Your task to perform on an android device: create a new album in the google photos Image 0: 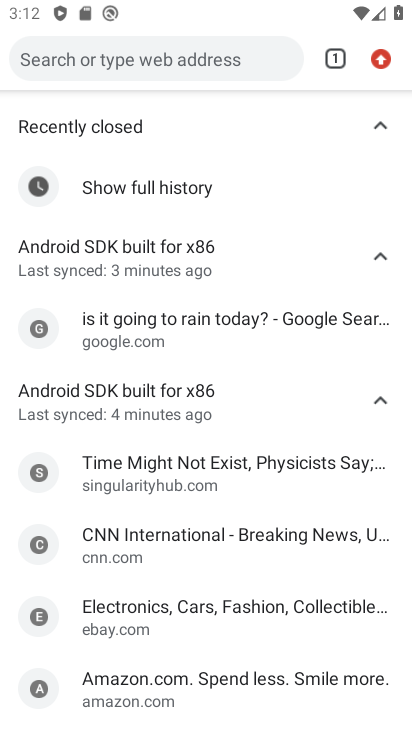
Step 0: press home button
Your task to perform on an android device: create a new album in the google photos Image 1: 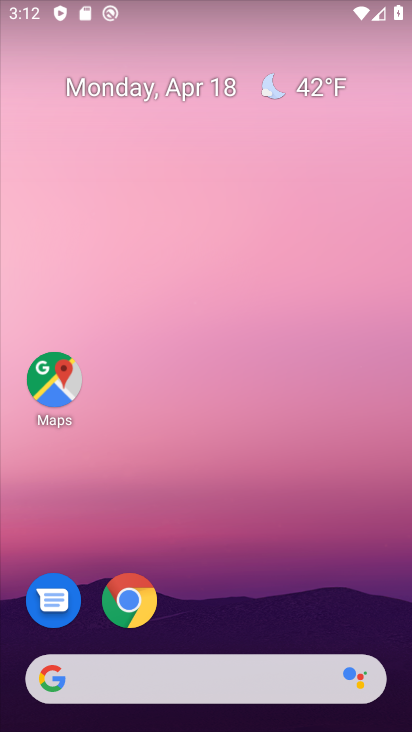
Step 1: drag from (193, 663) to (383, 206)
Your task to perform on an android device: create a new album in the google photos Image 2: 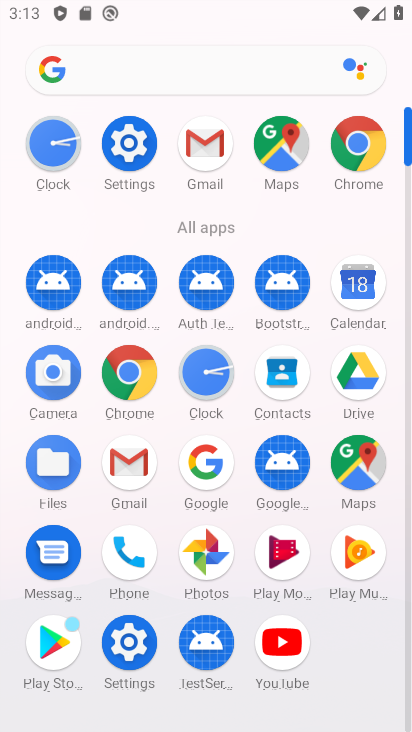
Step 2: click (208, 556)
Your task to perform on an android device: create a new album in the google photos Image 3: 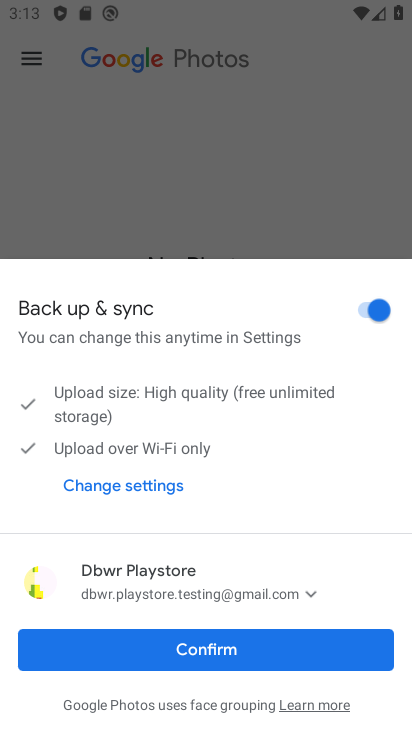
Step 3: click (201, 651)
Your task to perform on an android device: create a new album in the google photos Image 4: 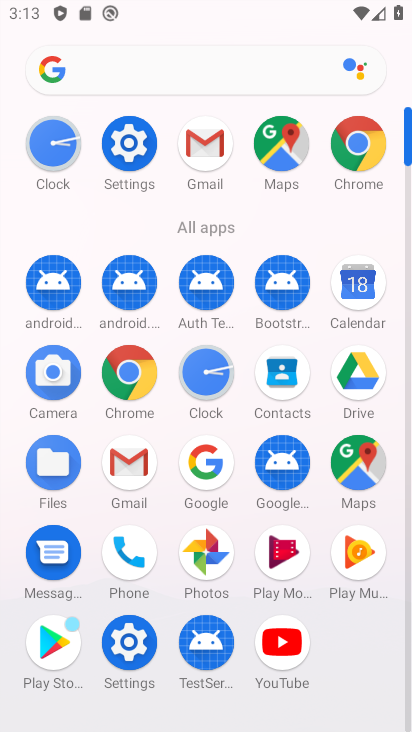
Step 4: click (209, 552)
Your task to perform on an android device: create a new album in the google photos Image 5: 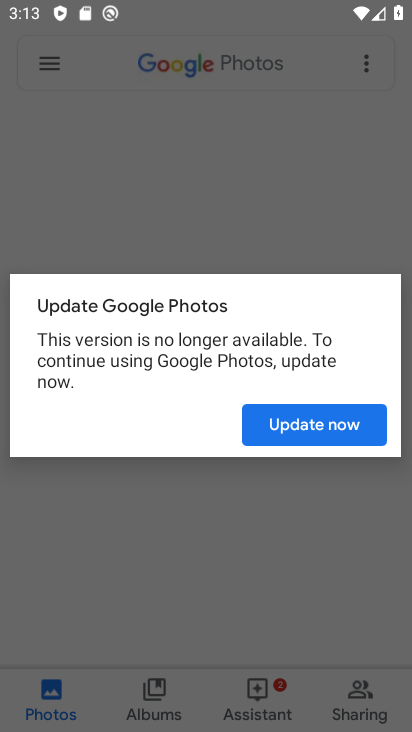
Step 5: click (315, 422)
Your task to perform on an android device: create a new album in the google photos Image 6: 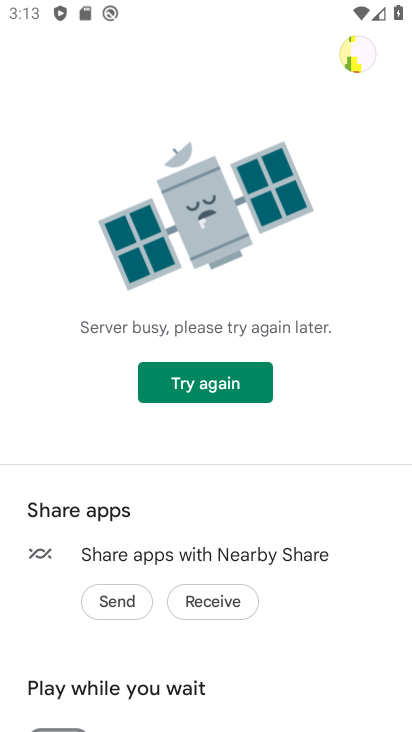
Step 6: drag from (232, 560) to (336, 271)
Your task to perform on an android device: create a new album in the google photos Image 7: 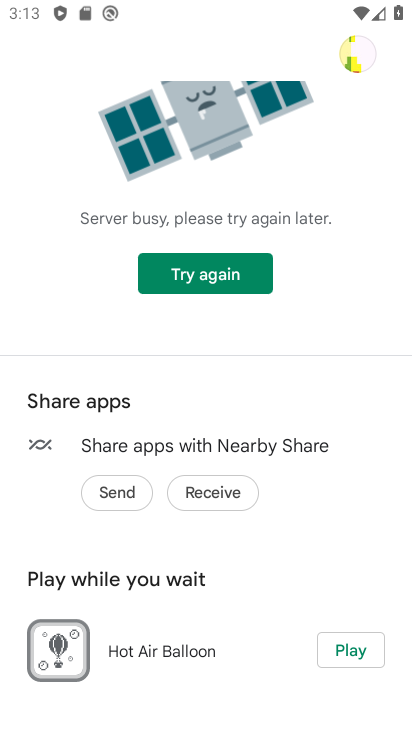
Step 7: press back button
Your task to perform on an android device: create a new album in the google photos Image 8: 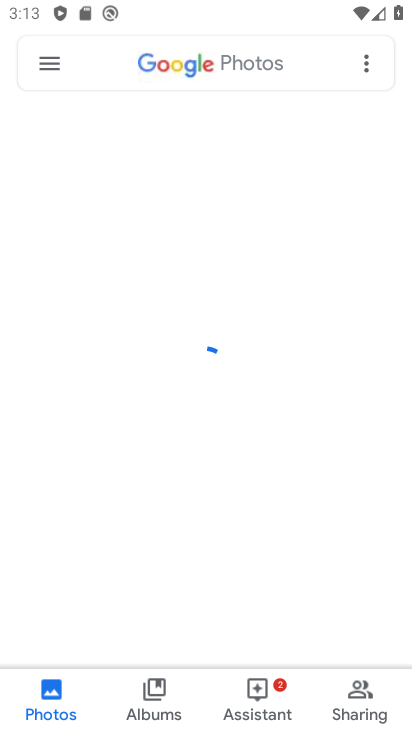
Step 8: click (158, 702)
Your task to perform on an android device: create a new album in the google photos Image 9: 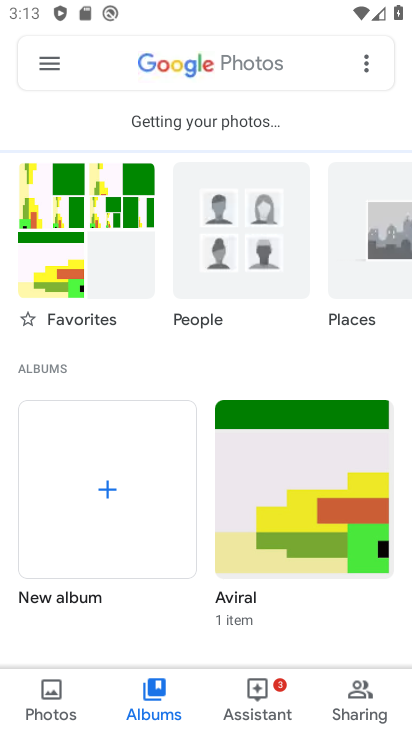
Step 9: click (106, 485)
Your task to perform on an android device: create a new album in the google photos Image 10: 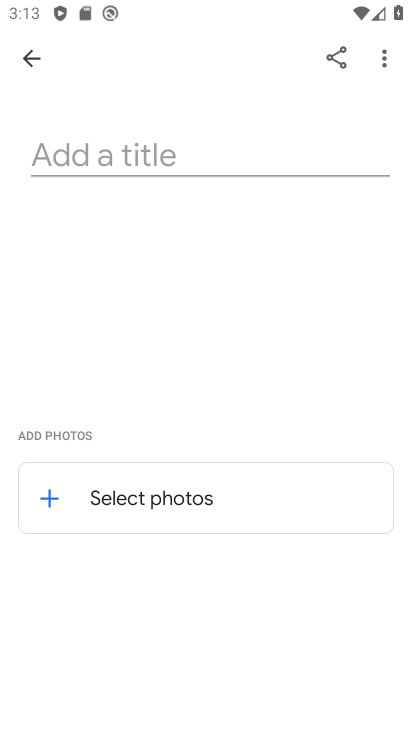
Step 10: click (105, 497)
Your task to perform on an android device: create a new album in the google photos Image 11: 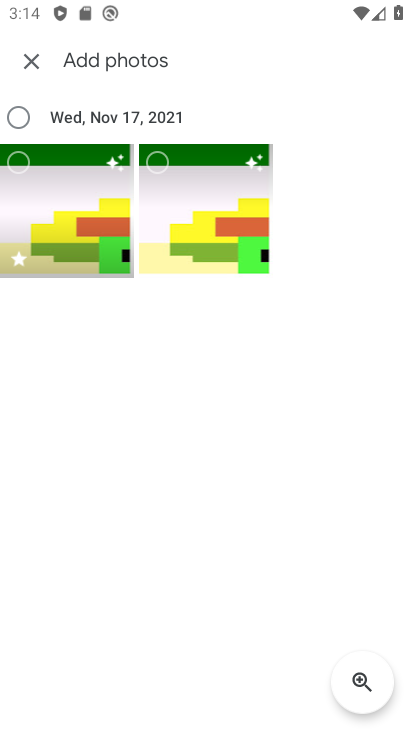
Step 11: click (15, 160)
Your task to perform on an android device: create a new album in the google photos Image 12: 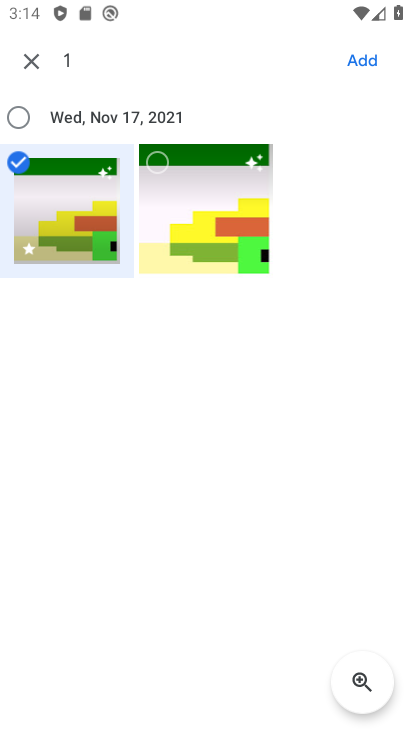
Step 12: click (148, 154)
Your task to perform on an android device: create a new album in the google photos Image 13: 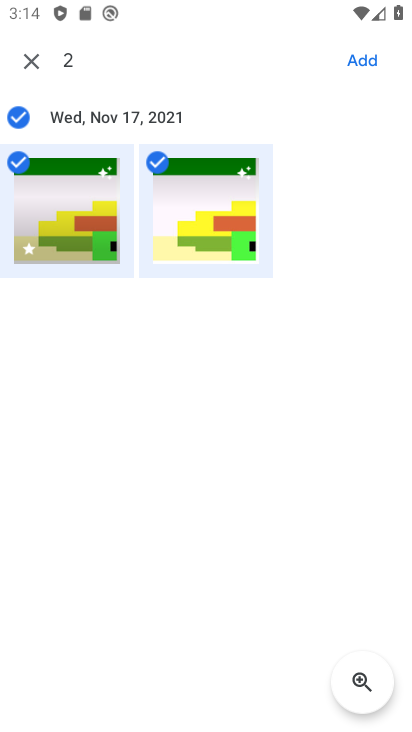
Step 13: click (349, 65)
Your task to perform on an android device: create a new album in the google photos Image 14: 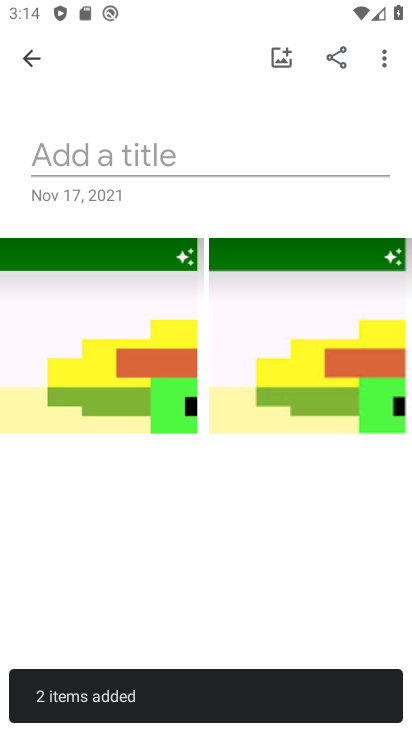
Step 14: task complete